Your task to perform on an android device: turn notification dots on Image 0: 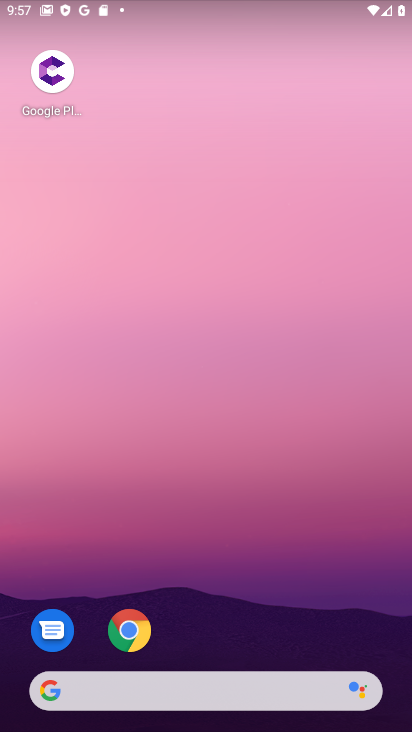
Step 0: drag from (147, 661) to (330, 690)
Your task to perform on an android device: turn notification dots on Image 1: 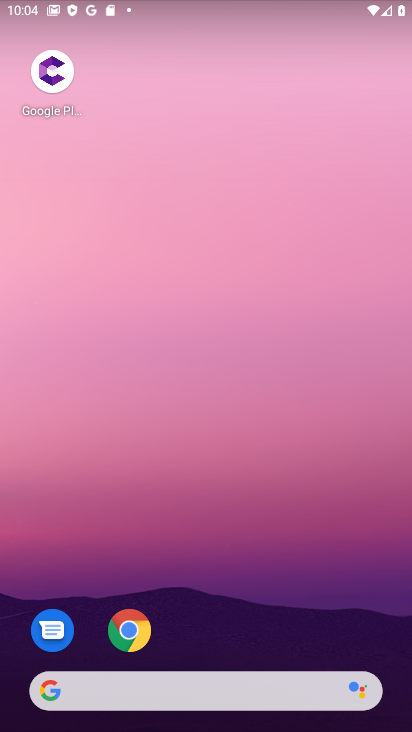
Step 1: drag from (172, 723) to (408, 476)
Your task to perform on an android device: turn notification dots on Image 2: 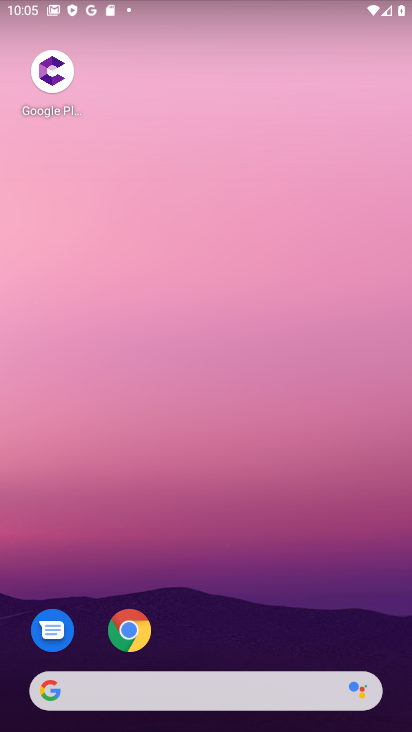
Step 2: drag from (239, 728) to (352, 32)
Your task to perform on an android device: turn notification dots on Image 3: 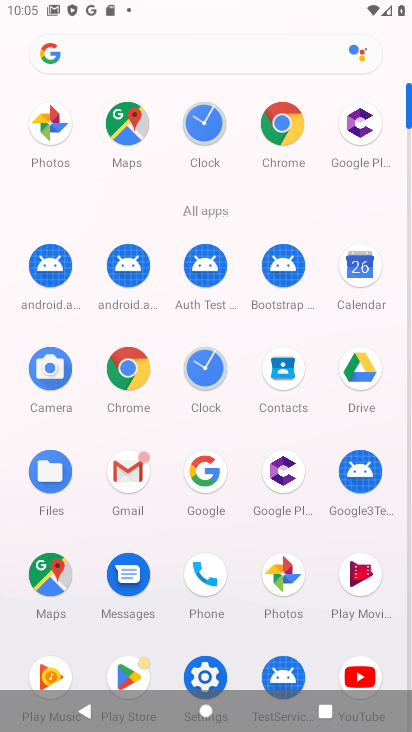
Step 3: click (198, 662)
Your task to perform on an android device: turn notification dots on Image 4: 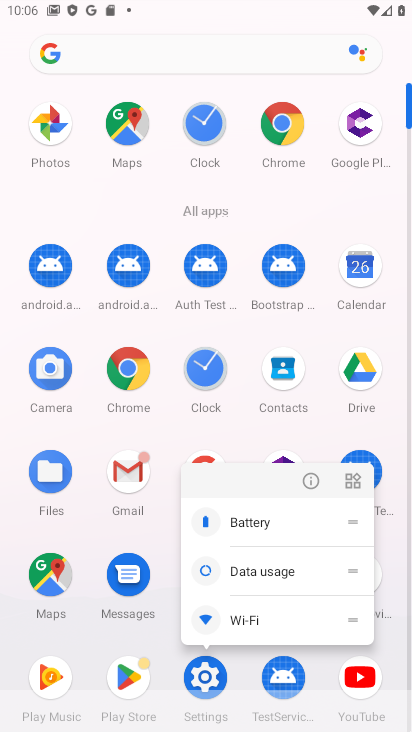
Step 4: click (216, 666)
Your task to perform on an android device: turn notification dots on Image 5: 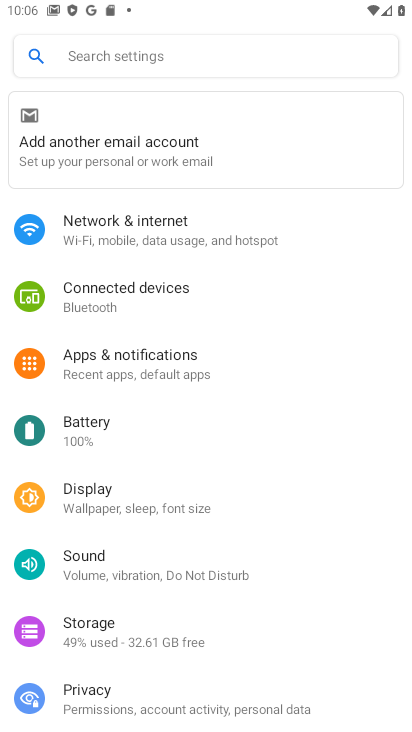
Step 5: click (226, 364)
Your task to perform on an android device: turn notification dots on Image 6: 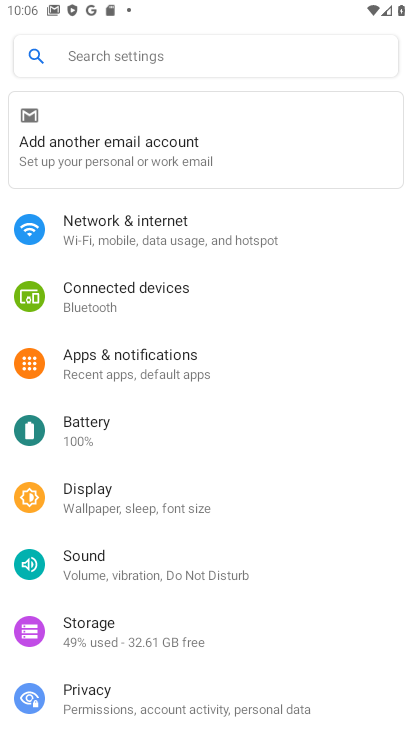
Step 6: click (226, 364)
Your task to perform on an android device: turn notification dots on Image 7: 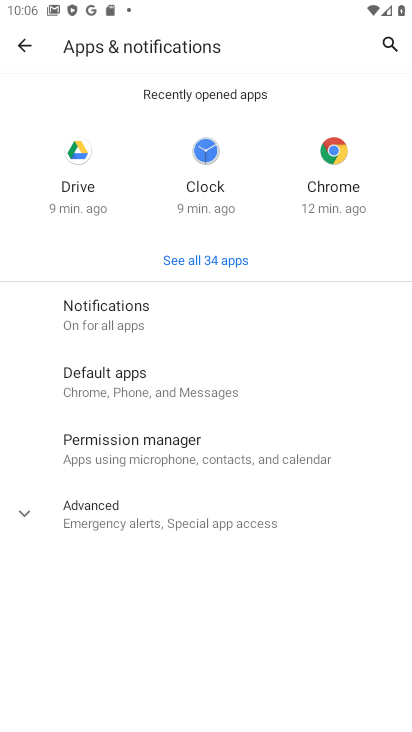
Step 7: click (115, 316)
Your task to perform on an android device: turn notification dots on Image 8: 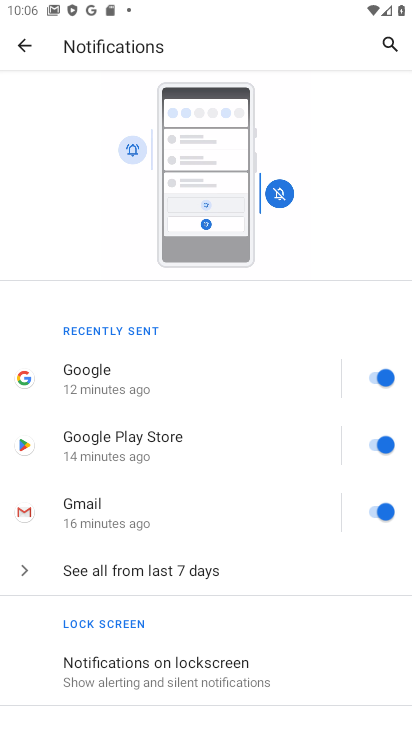
Step 8: drag from (302, 669) to (226, 143)
Your task to perform on an android device: turn notification dots on Image 9: 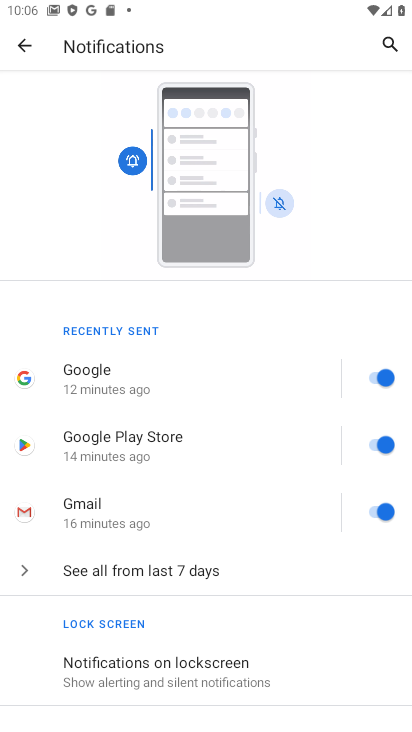
Step 9: drag from (272, 662) to (261, 4)
Your task to perform on an android device: turn notification dots on Image 10: 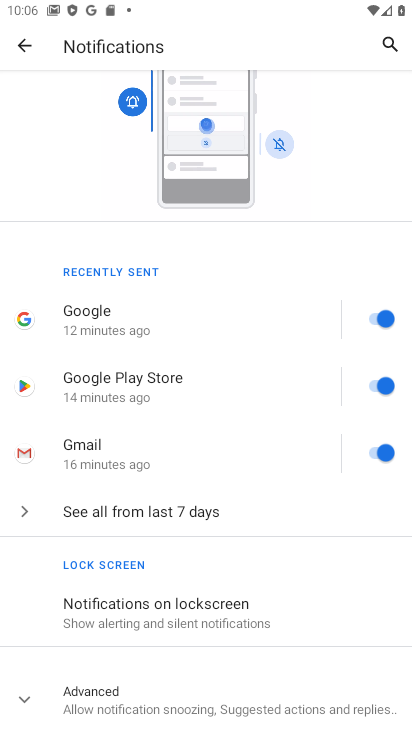
Step 10: click (160, 706)
Your task to perform on an android device: turn notification dots on Image 11: 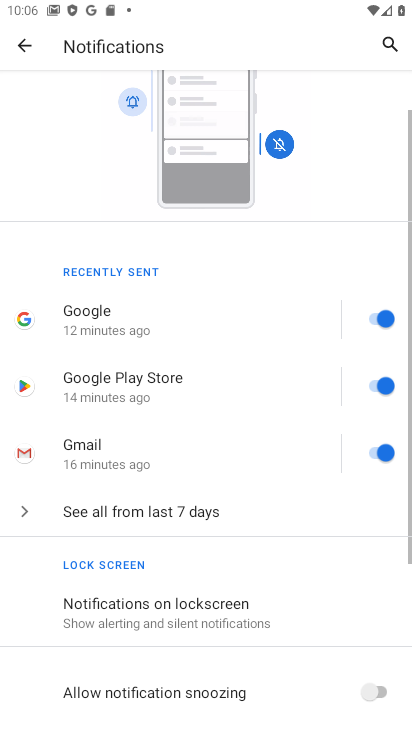
Step 11: task complete